Your task to perform on an android device: Open the stopwatch Image 0: 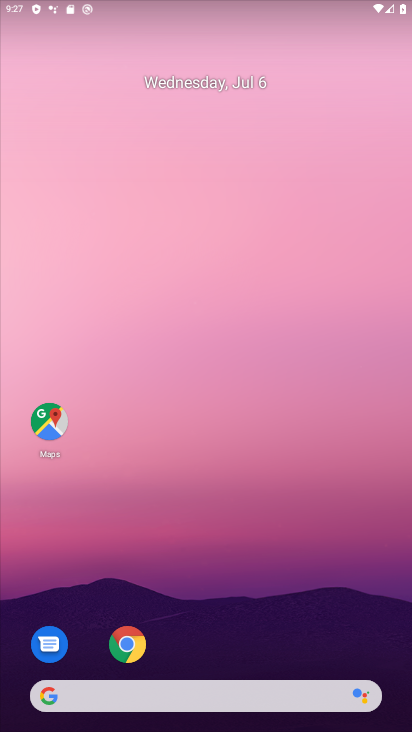
Step 0: drag from (259, 648) to (148, 234)
Your task to perform on an android device: Open the stopwatch Image 1: 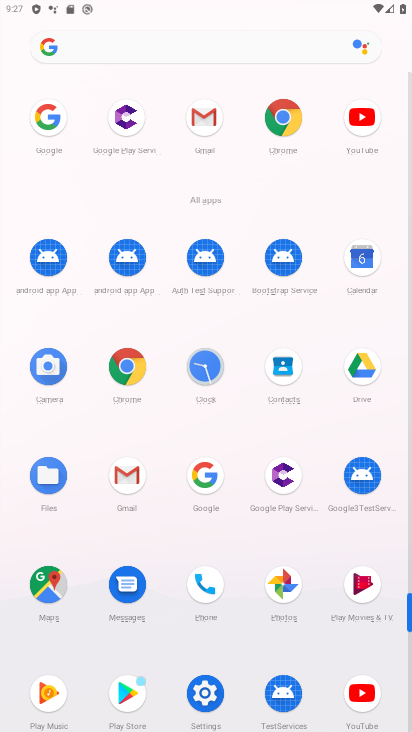
Step 1: click (197, 365)
Your task to perform on an android device: Open the stopwatch Image 2: 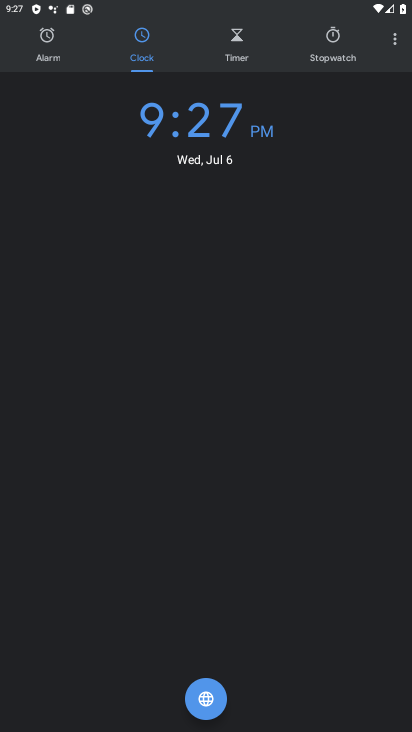
Step 2: click (328, 43)
Your task to perform on an android device: Open the stopwatch Image 3: 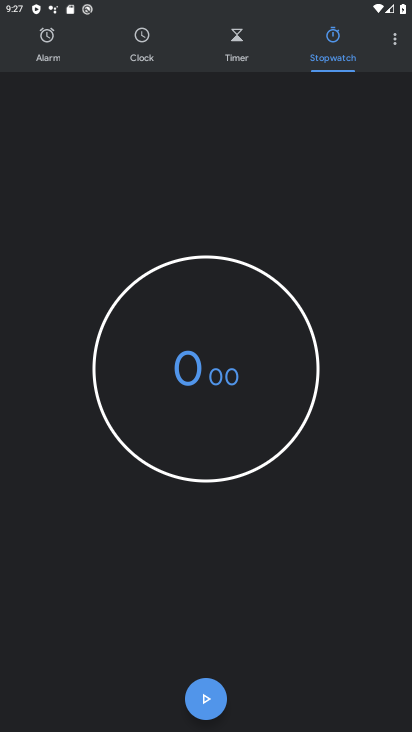
Step 3: click (194, 704)
Your task to perform on an android device: Open the stopwatch Image 4: 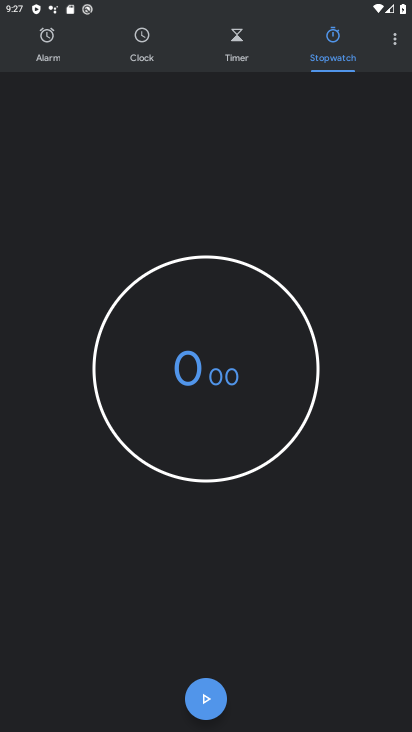
Step 4: click (198, 703)
Your task to perform on an android device: Open the stopwatch Image 5: 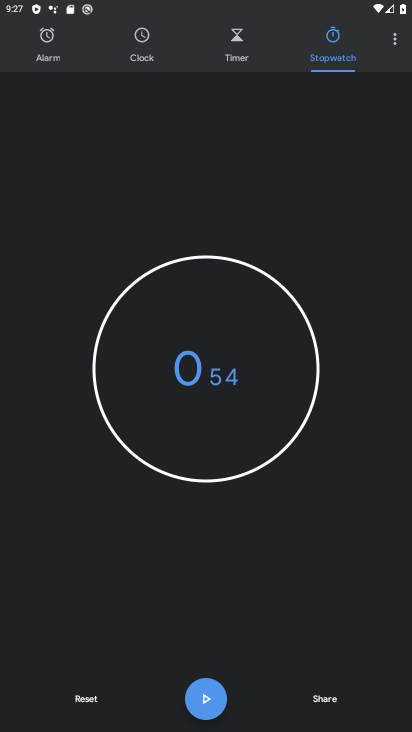
Step 5: click (201, 695)
Your task to perform on an android device: Open the stopwatch Image 6: 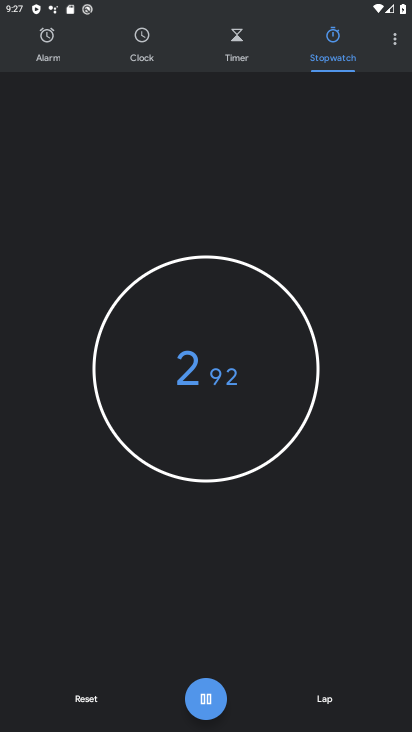
Step 6: click (200, 695)
Your task to perform on an android device: Open the stopwatch Image 7: 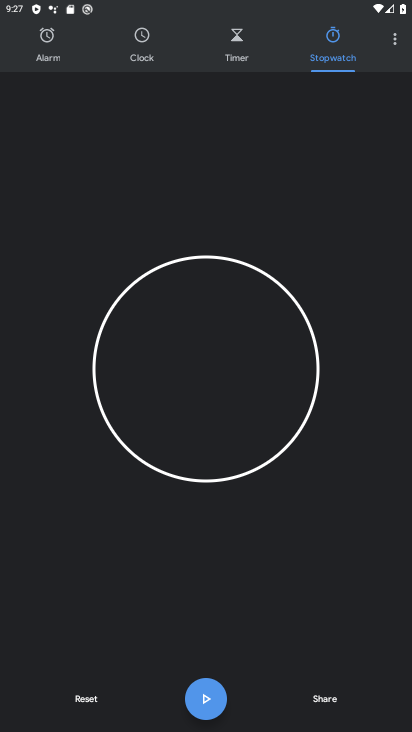
Step 7: task complete